Your task to perform on an android device: Go to Google Image 0: 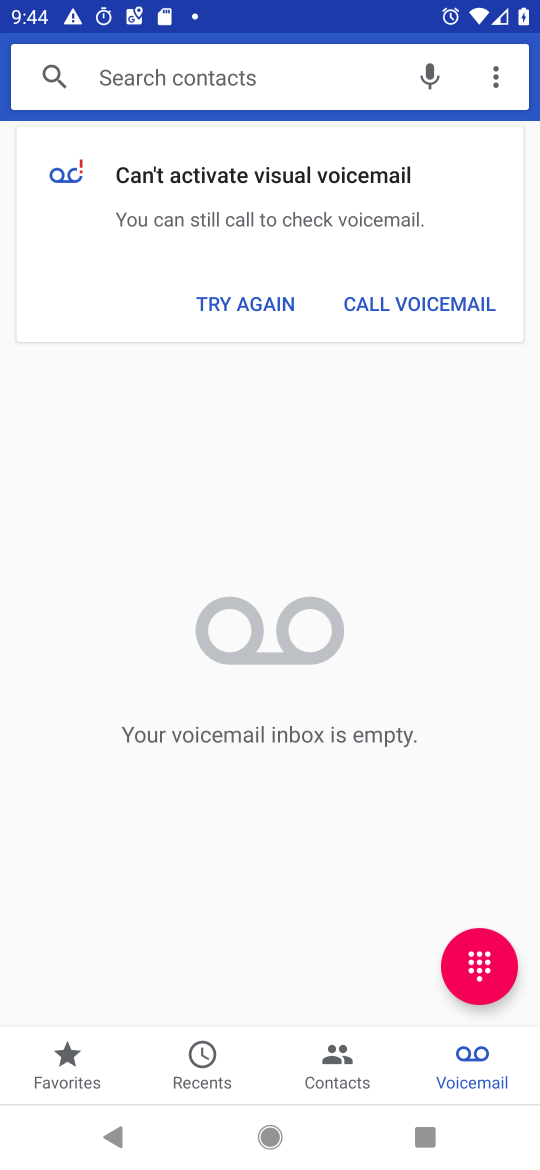
Step 0: press home button
Your task to perform on an android device: Go to Google Image 1: 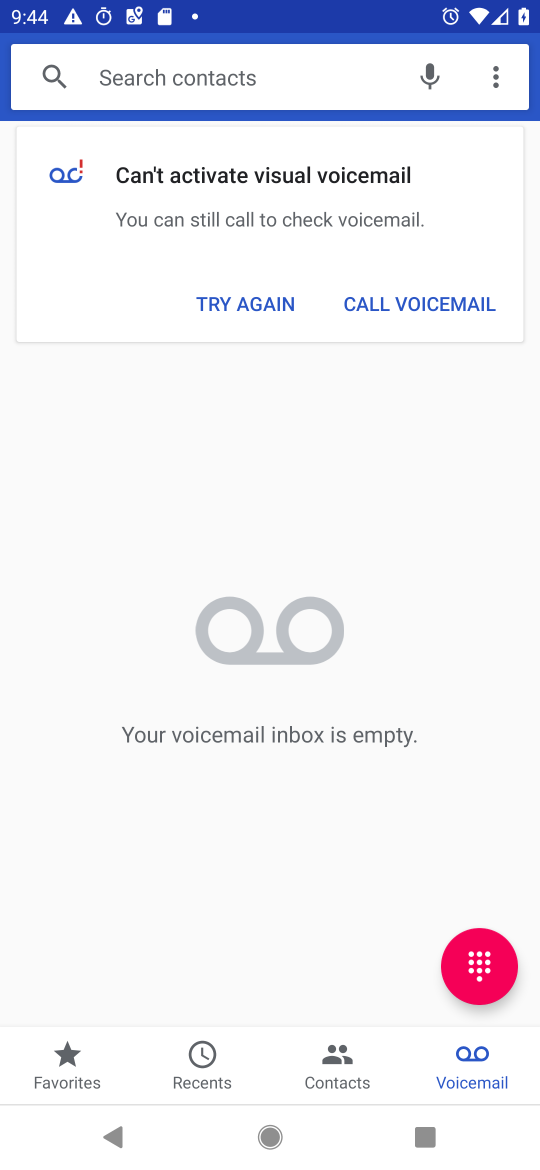
Step 1: drag from (270, 881) to (351, 45)
Your task to perform on an android device: Go to Google Image 2: 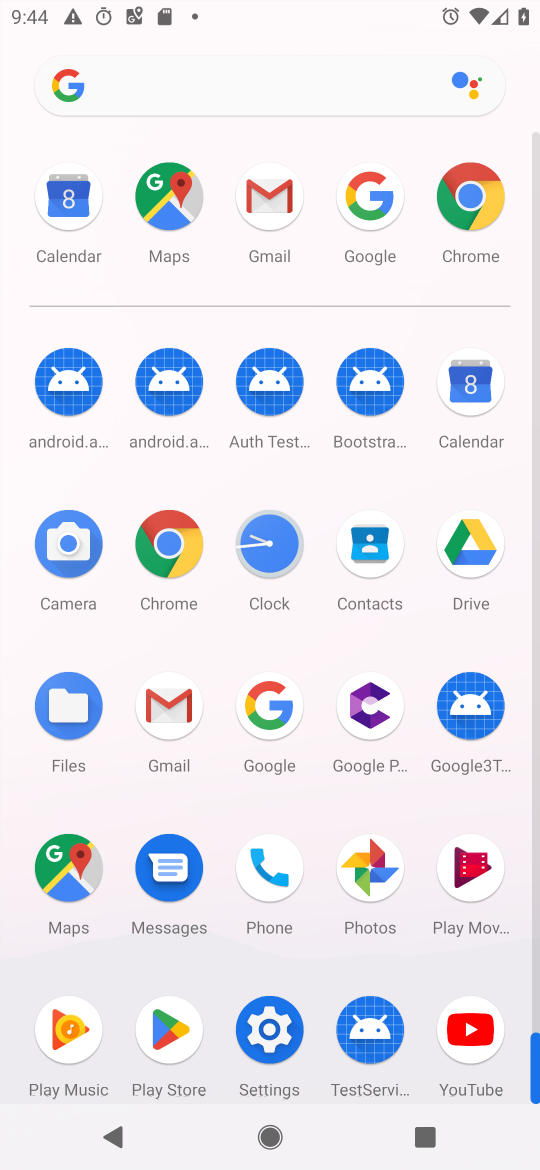
Step 2: click (244, 704)
Your task to perform on an android device: Go to Google Image 3: 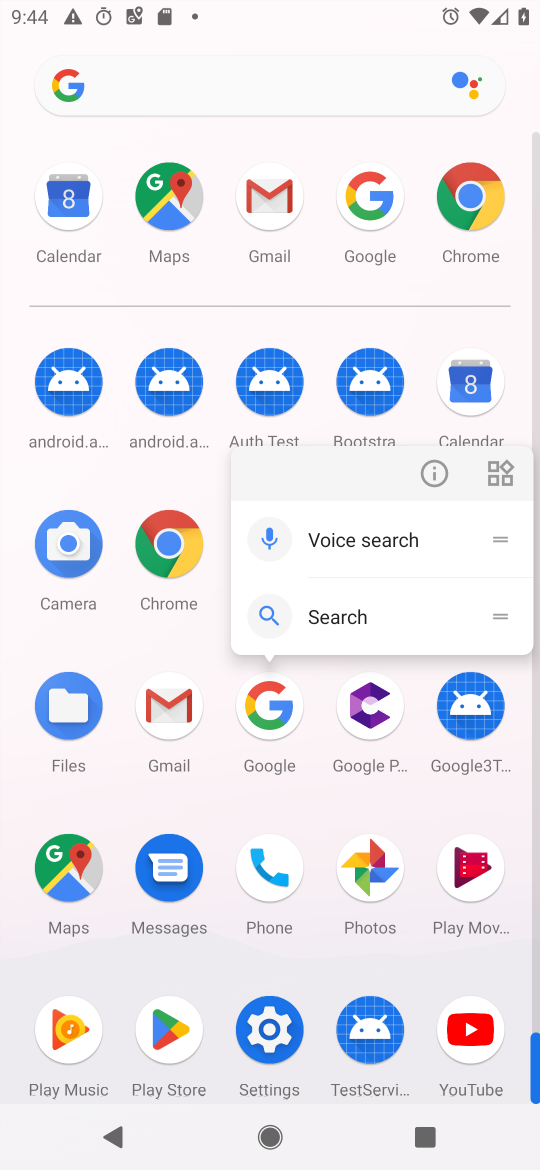
Step 3: click (428, 480)
Your task to perform on an android device: Go to Google Image 4: 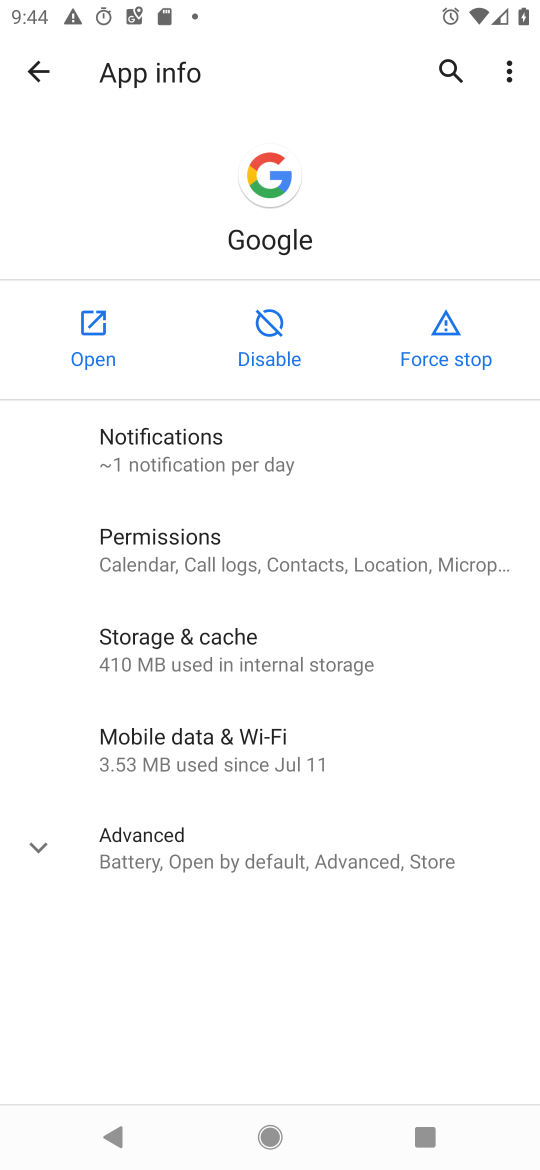
Step 4: click (78, 351)
Your task to perform on an android device: Go to Google Image 5: 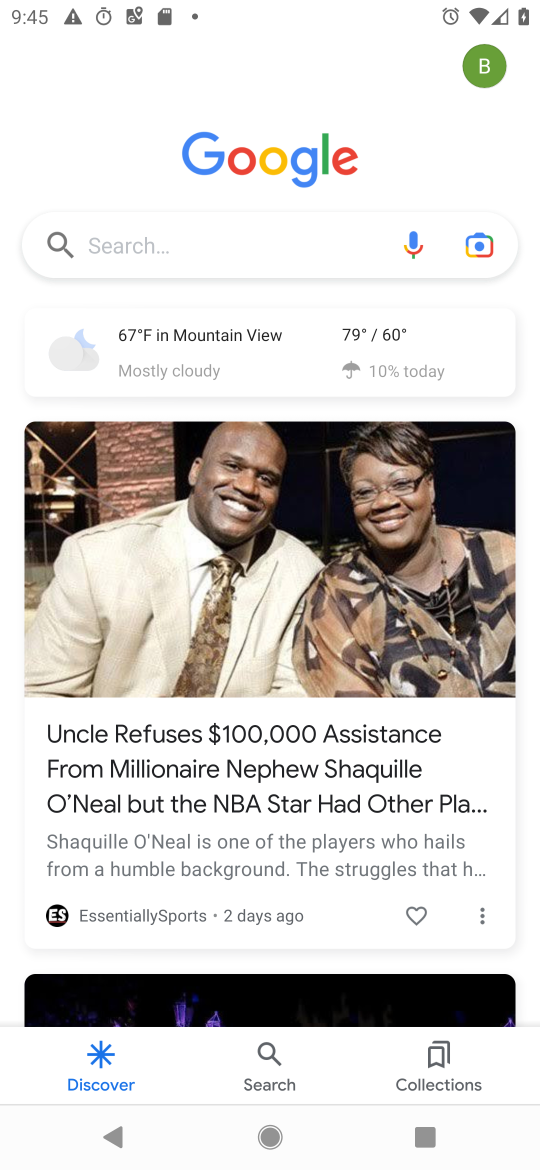
Step 5: task complete